Your task to perform on an android device: Go to Google maps Image 0: 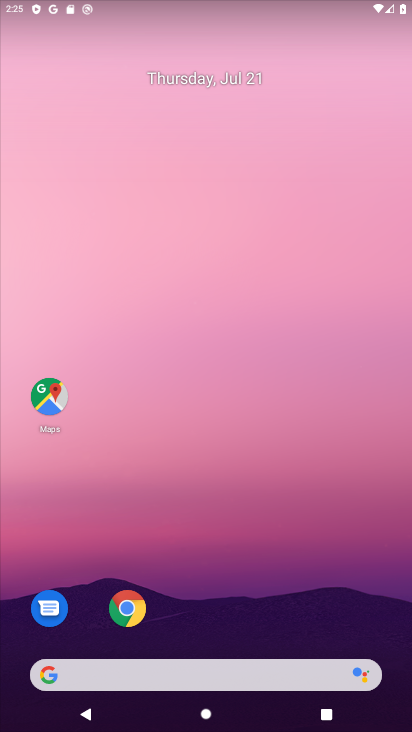
Step 0: drag from (215, 657) to (260, 48)
Your task to perform on an android device: Go to Google maps Image 1: 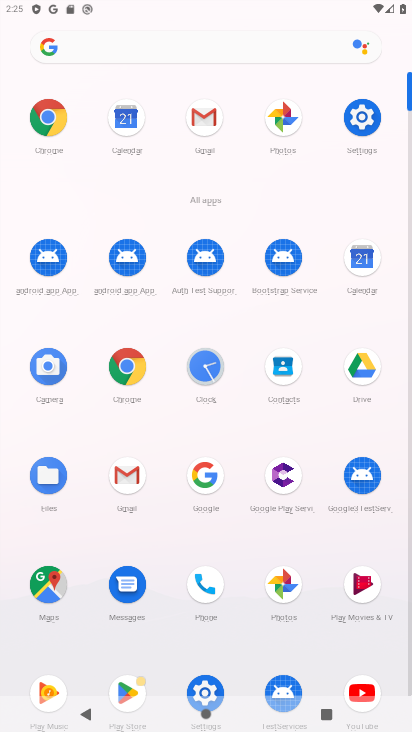
Step 1: click (49, 572)
Your task to perform on an android device: Go to Google maps Image 2: 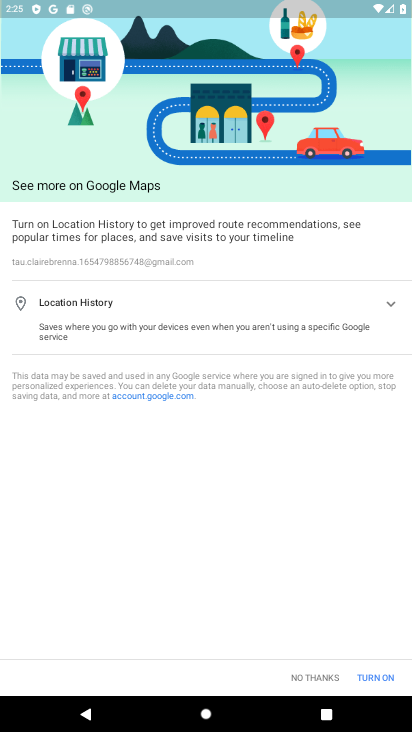
Step 2: click (383, 681)
Your task to perform on an android device: Go to Google maps Image 3: 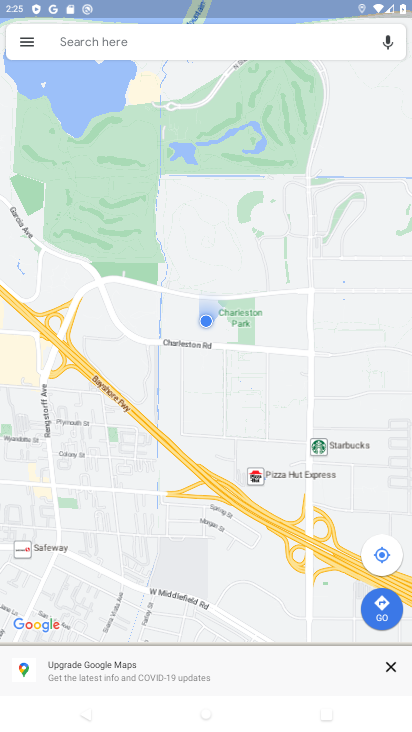
Step 3: task complete